Your task to perform on an android device: What's the weather going to be this weekend? Image 0: 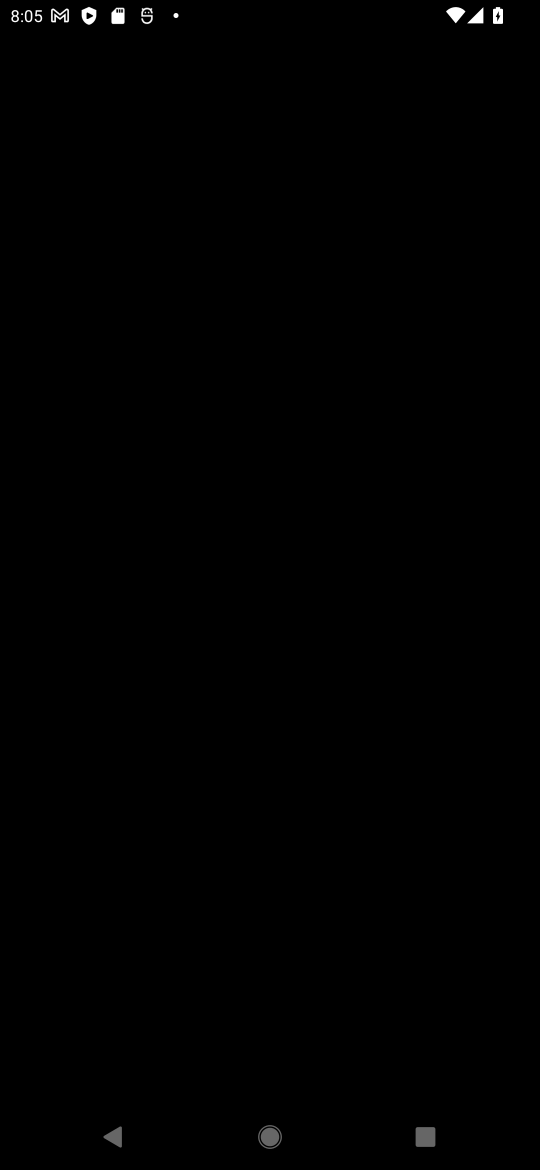
Step 0: press home button
Your task to perform on an android device: What's the weather going to be this weekend? Image 1: 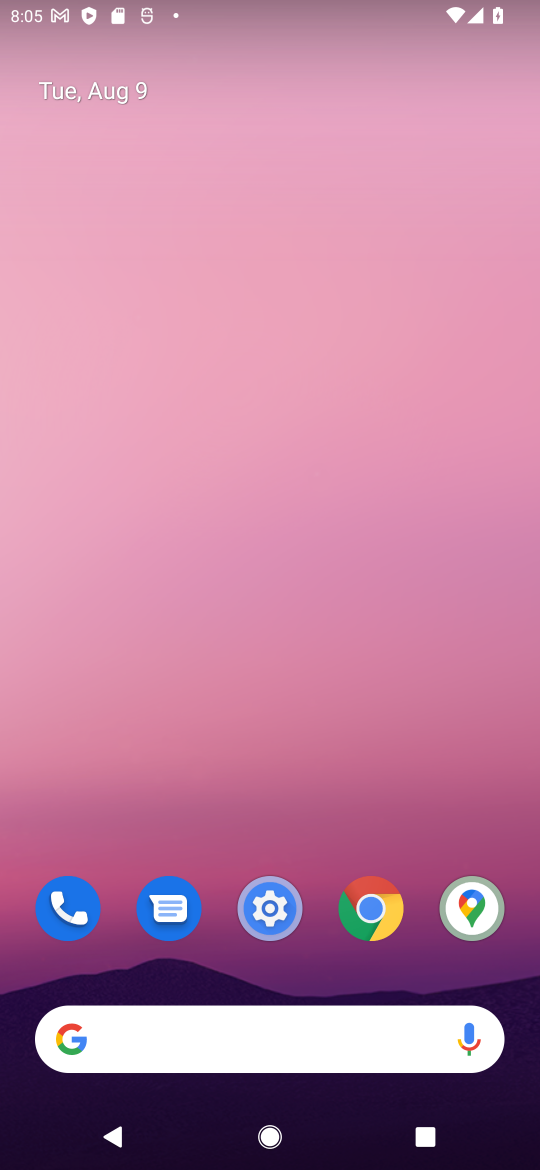
Step 1: drag from (251, 915) to (232, 261)
Your task to perform on an android device: What's the weather going to be this weekend? Image 2: 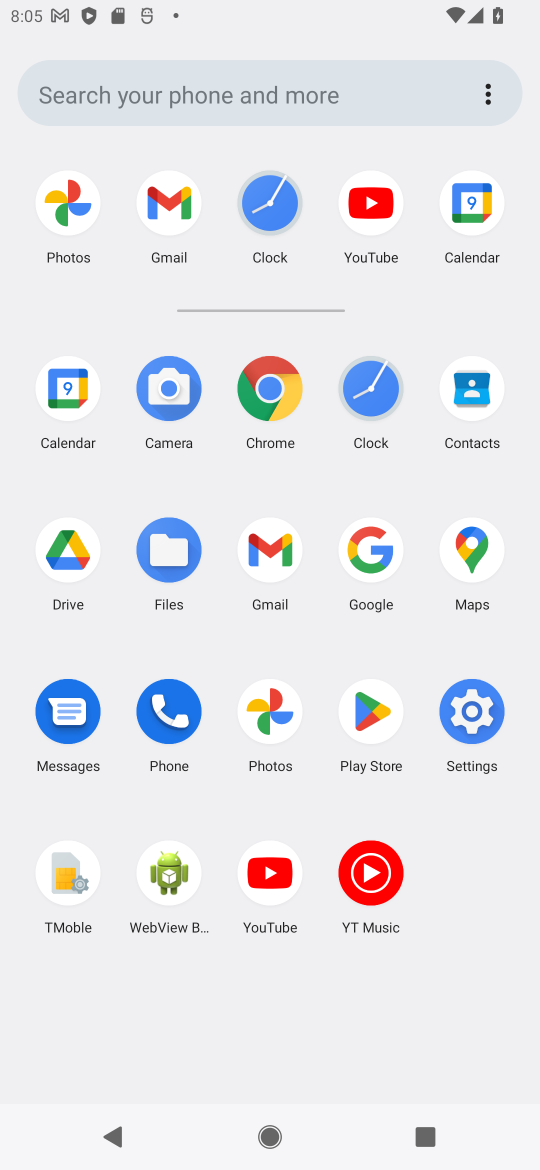
Step 2: click (371, 560)
Your task to perform on an android device: What's the weather going to be this weekend? Image 3: 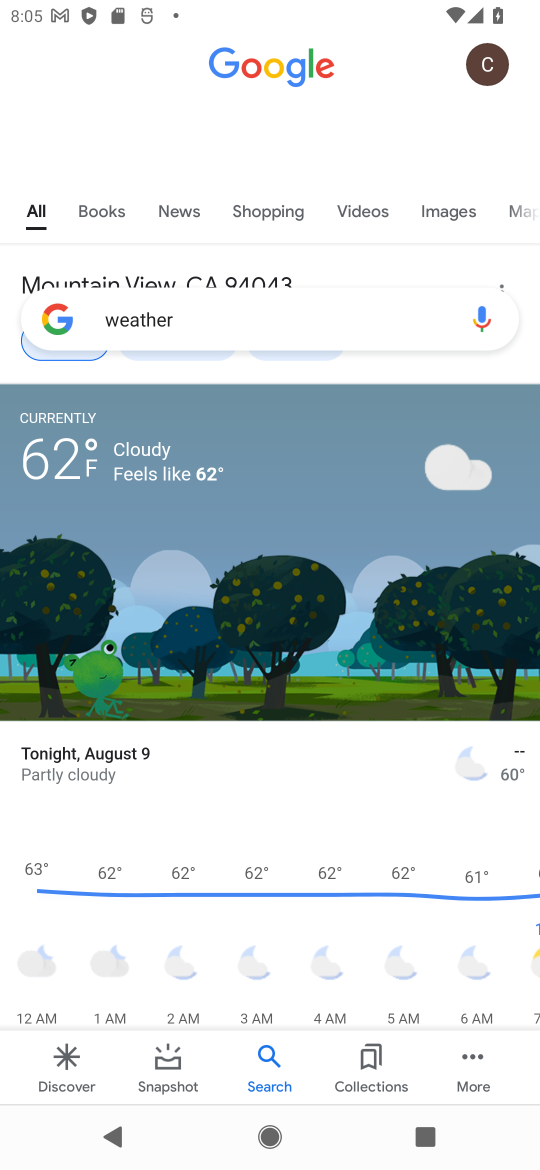
Step 3: drag from (272, 893) to (267, 580)
Your task to perform on an android device: What's the weather going to be this weekend? Image 4: 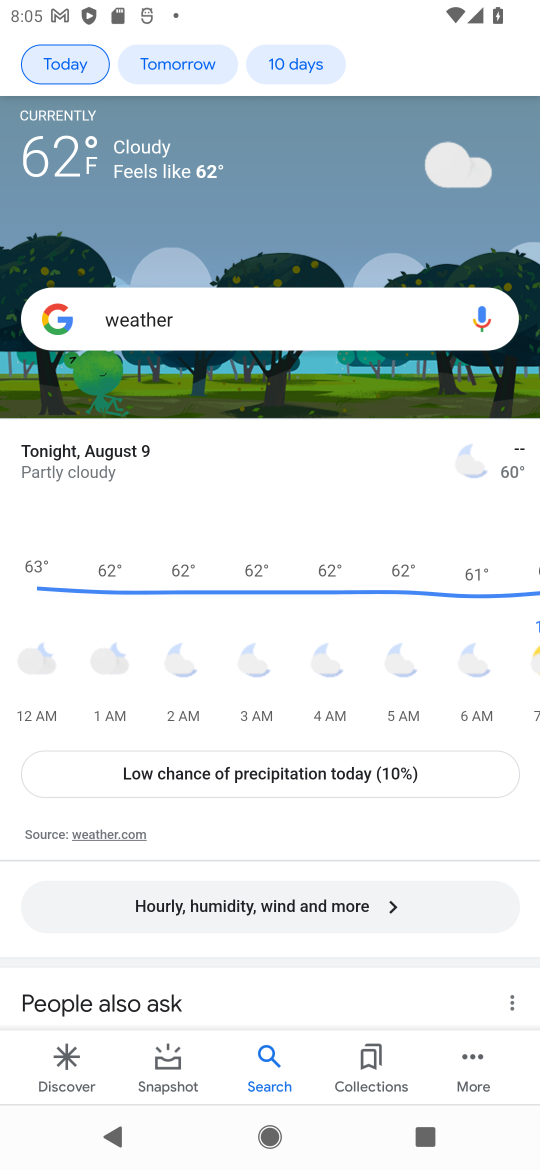
Step 4: drag from (270, 379) to (248, 640)
Your task to perform on an android device: What's the weather going to be this weekend? Image 5: 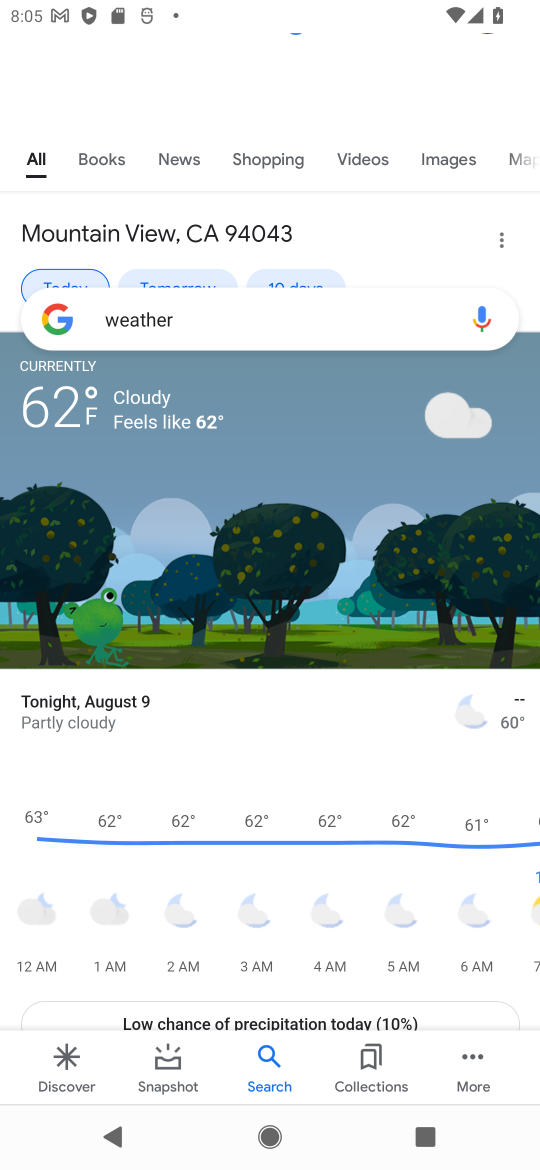
Step 5: click (293, 275)
Your task to perform on an android device: What's the weather going to be this weekend? Image 6: 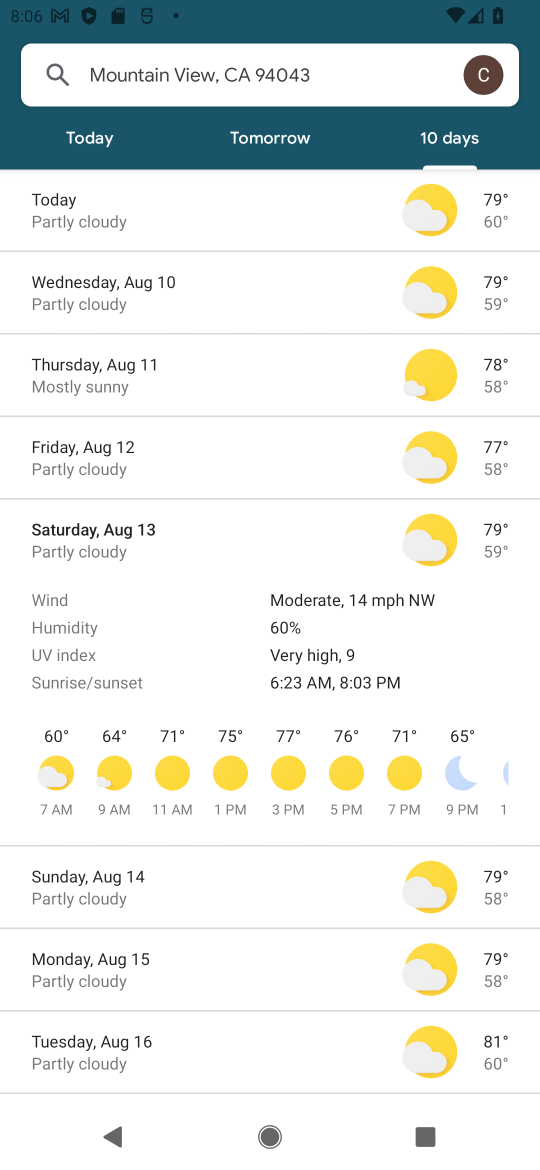
Step 6: task complete